Your task to perform on an android device: turn on airplane mode Image 0: 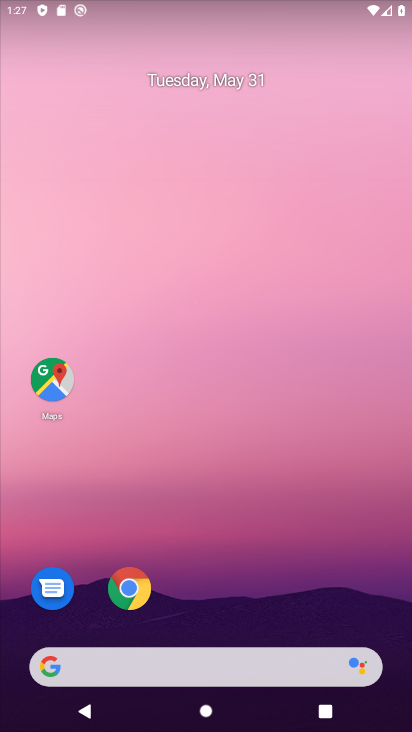
Step 0: drag from (362, 607) to (359, 204)
Your task to perform on an android device: turn on airplane mode Image 1: 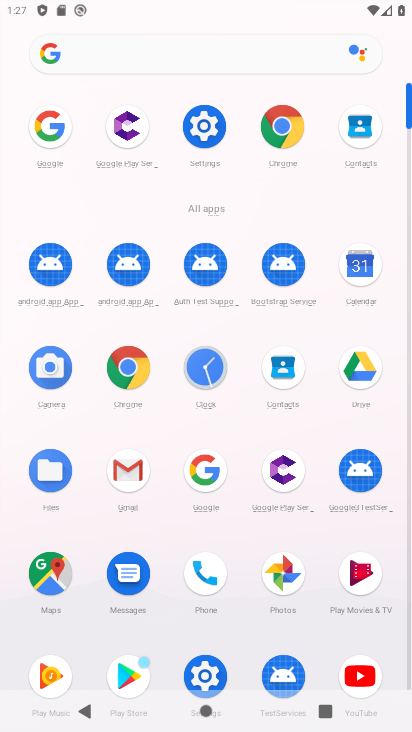
Step 1: click (201, 133)
Your task to perform on an android device: turn on airplane mode Image 2: 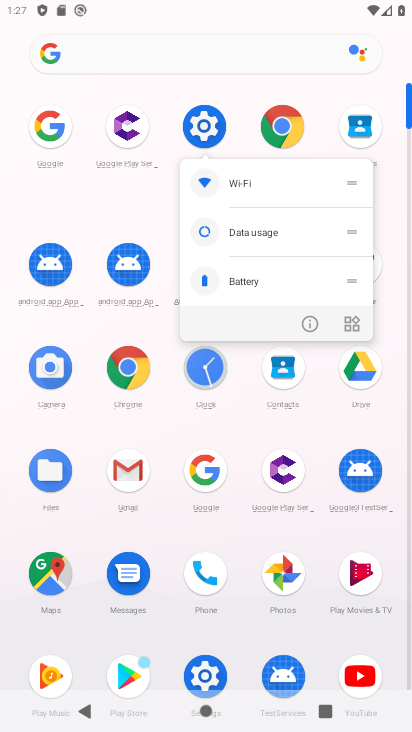
Step 2: click (208, 129)
Your task to perform on an android device: turn on airplane mode Image 3: 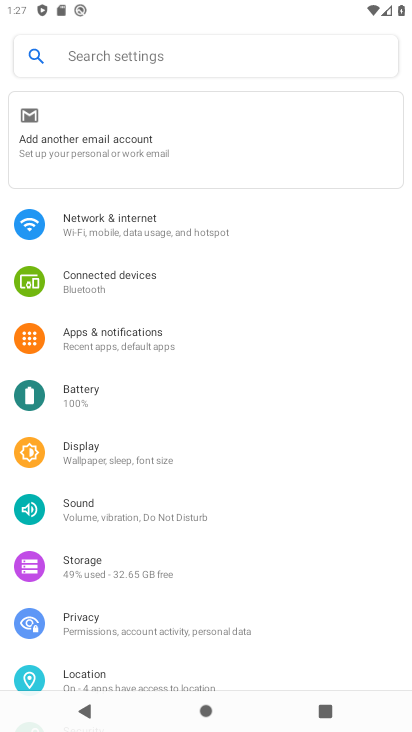
Step 3: drag from (319, 452) to (322, 343)
Your task to perform on an android device: turn on airplane mode Image 4: 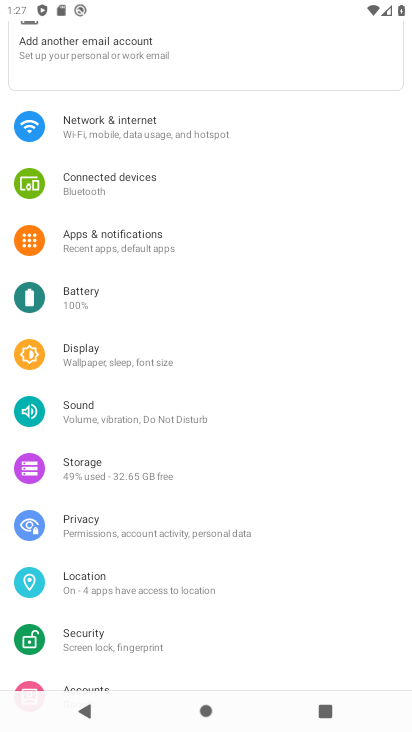
Step 4: drag from (345, 456) to (340, 341)
Your task to perform on an android device: turn on airplane mode Image 5: 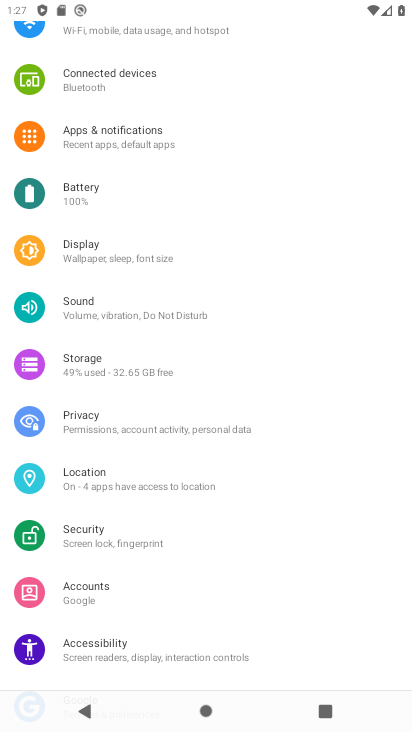
Step 5: drag from (344, 488) to (334, 369)
Your task to perform on an android device: turn on airplane mode Image 6: 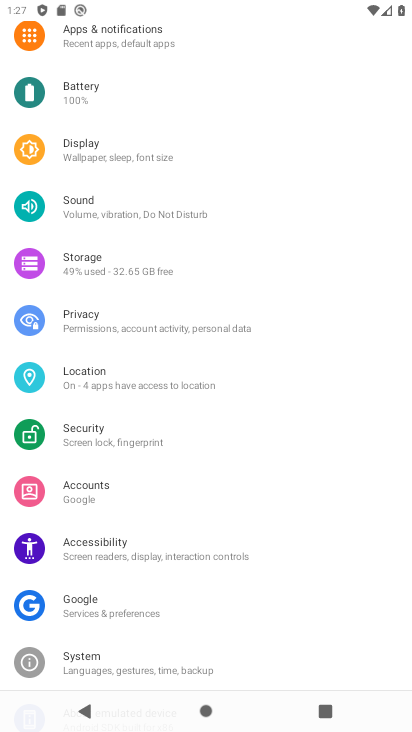
Step 6: drag from (342, 489) to (345, 383)
Your task to perform on an android device: turn on airplane mode Image 7: 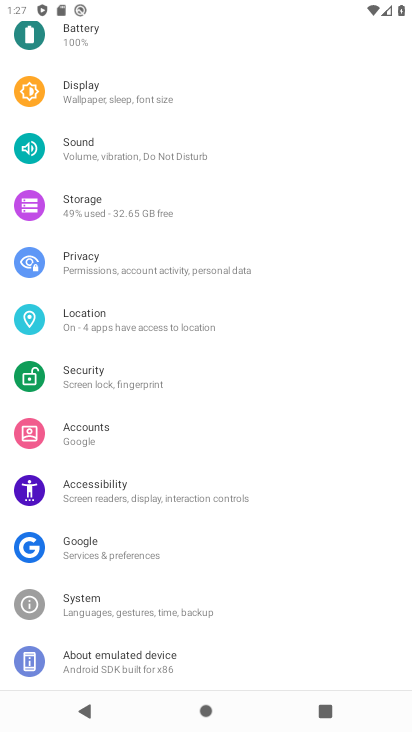
Step 7: drag from (325, 220) to (323, 318)
Your task to perform on an android device: turn on airplane mode Image 8: 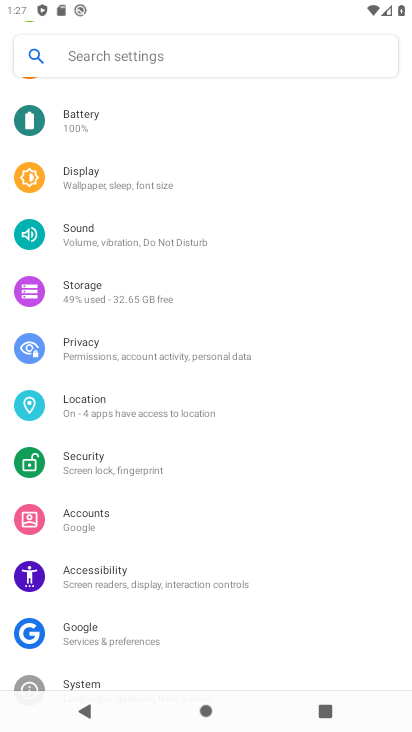
Step 8: drag from (309, 186) to (314, 290)
Your task to perform on an android device: turn on airplane mode Image 9: 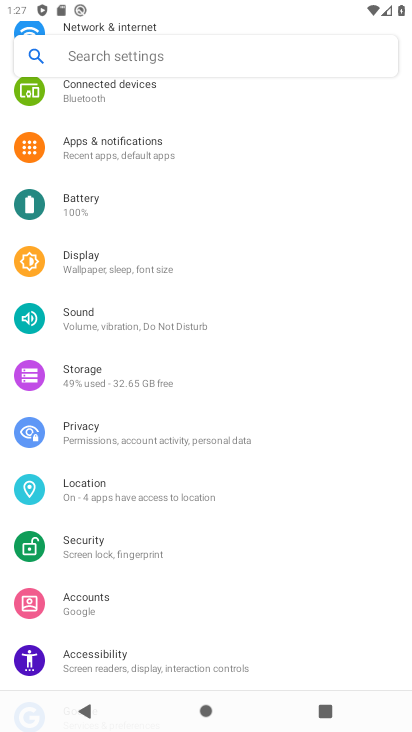
Step 9: drag from (316, 167) to (320, 275)
Your task to perform on an android device: turn on airplane mode Image 10: 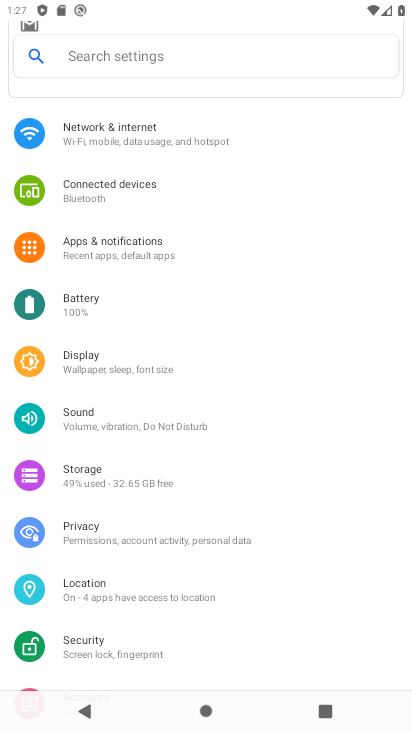
Step 10: drag from (317, 162) to (315, 289)
Your task to perform on an android device: turn on airplane mode Image 11: 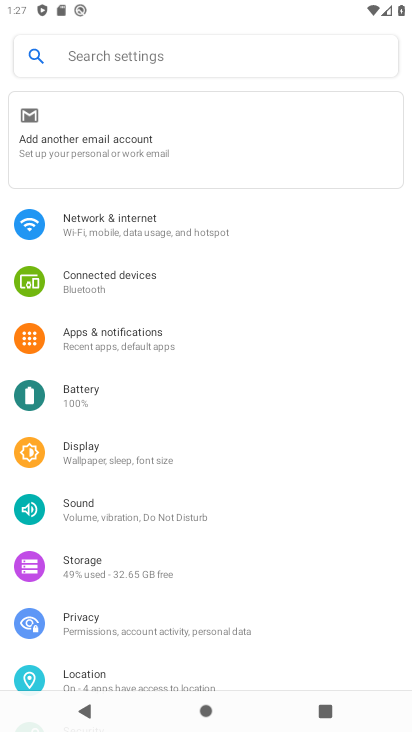
Step 11: click (220, 242)
Your task to perform on an android device: turn on airplane mode Image 12: 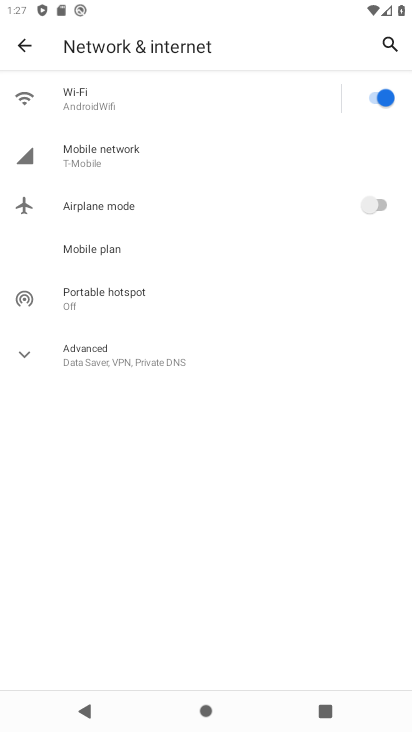
Step 12: click (378, 213)
Your task to perform on an android device: turn on airplane mode Image 13: 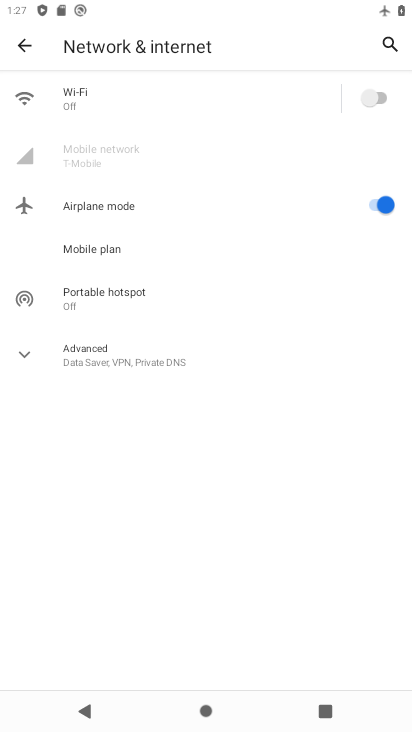
Step 13: task complete